Your task to perform on an android device: turn notification dots off Image 0: 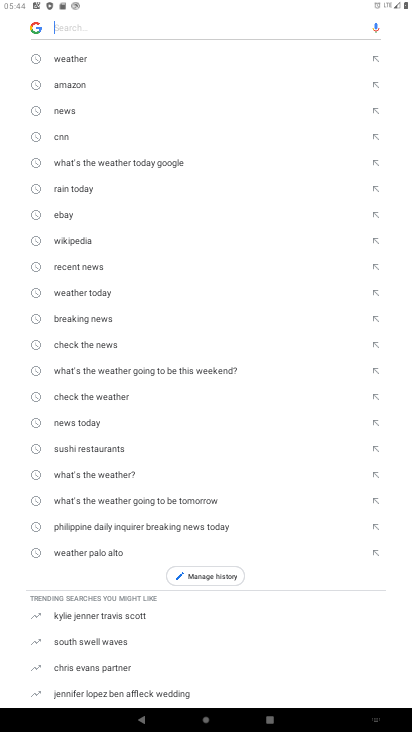
Step 0: press home button
Your task to perform on an android device: turn notification dots off Image 1: 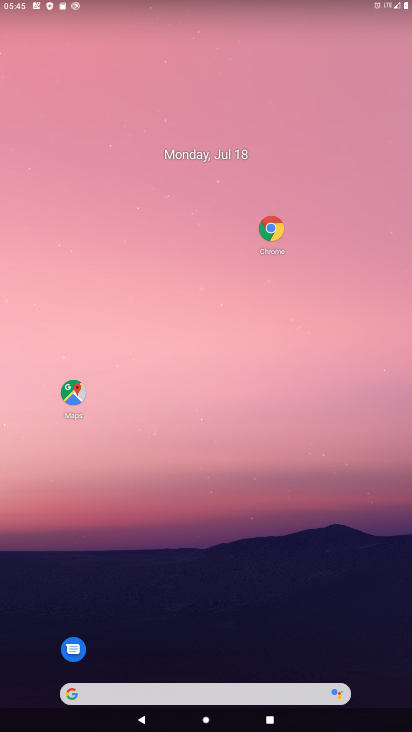
Step 1: drag from (285, 626) to (254, 165)
Your task to perform on an android device: turn notification dots off Image 2: 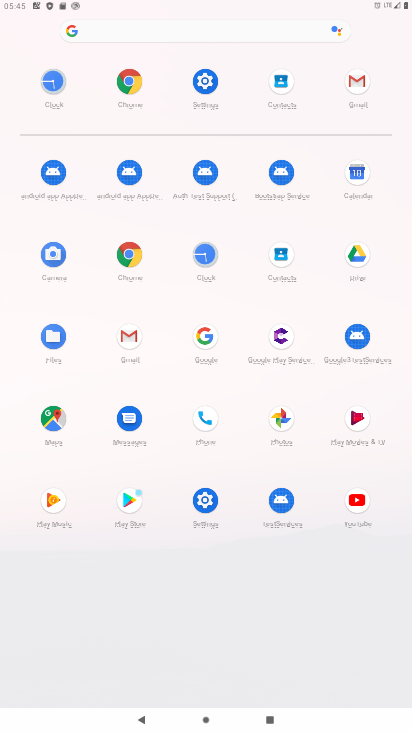
Step 2: click (211, 72)
Your task to perform on an android device: turn notification dots off Image 3: 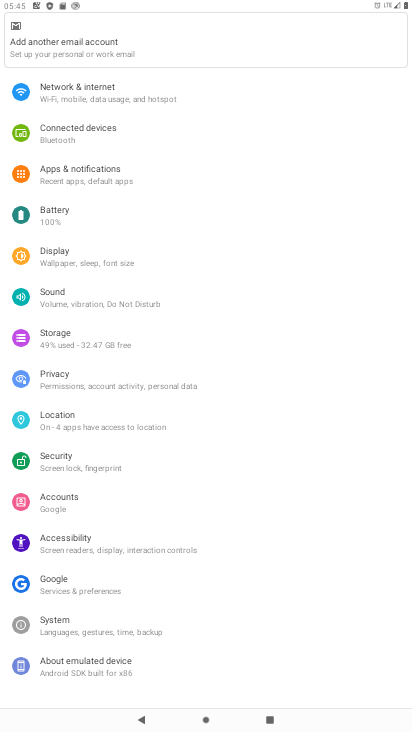
Step 3: click (143, 185)
Your task to perform on an android device: turn notification dots off Image 4: 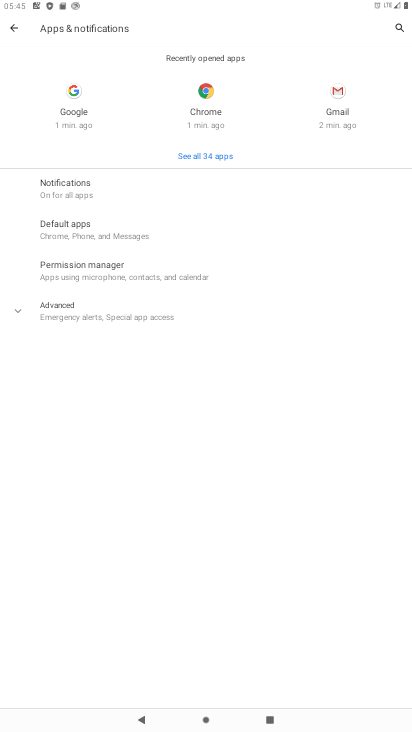
Step 4: click (126, 193)
Your task to perform on an android device: turn notification dots off Image 5: 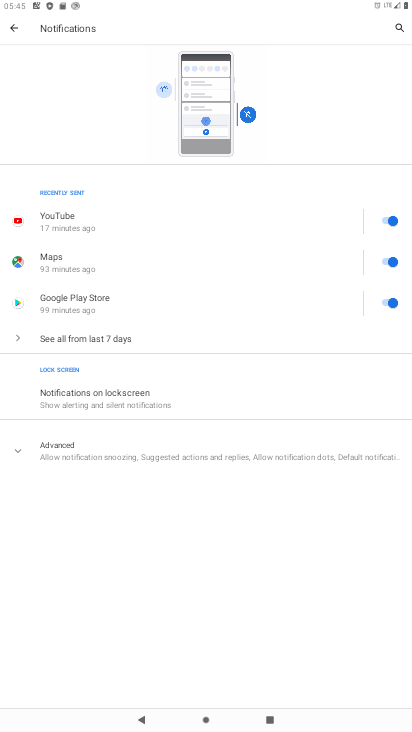
Step 5: click (205, 413)
Your task to perform on an android device: turn notification dots off Image 6: 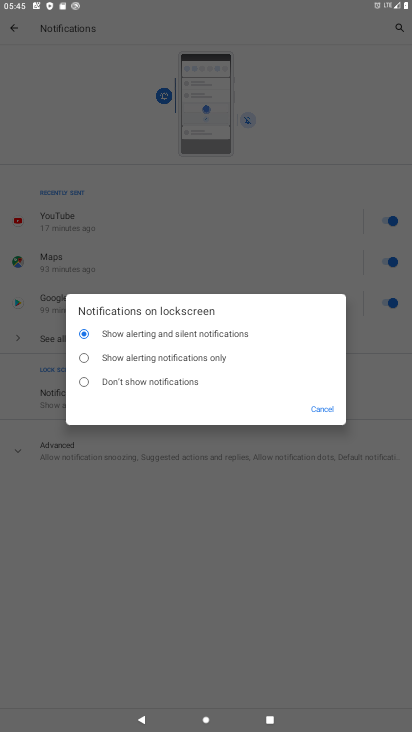
Step 6: click (332, 421)
Your task to perform on an android device: turn notification dots off Image 7: 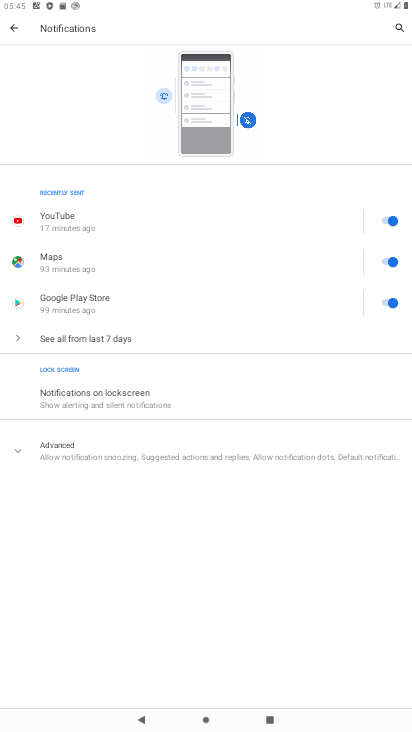
Step 7: click (148, 458)
Your task to perform on an android device: turn notification dots off Image 8: 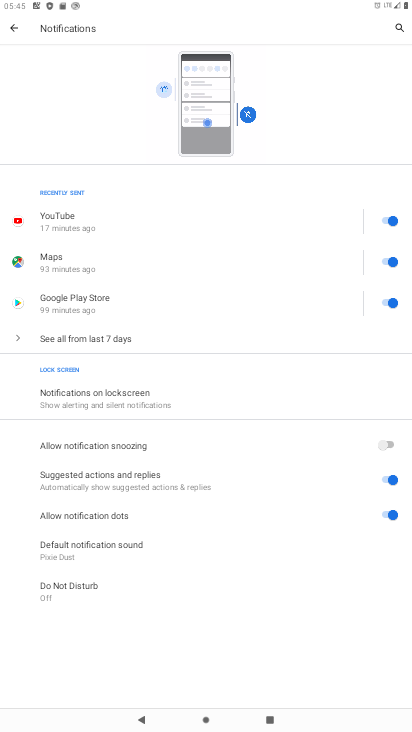
Step 8: click (396, 517)
Your task to perform on an android device: turn notification dots off Image 9: 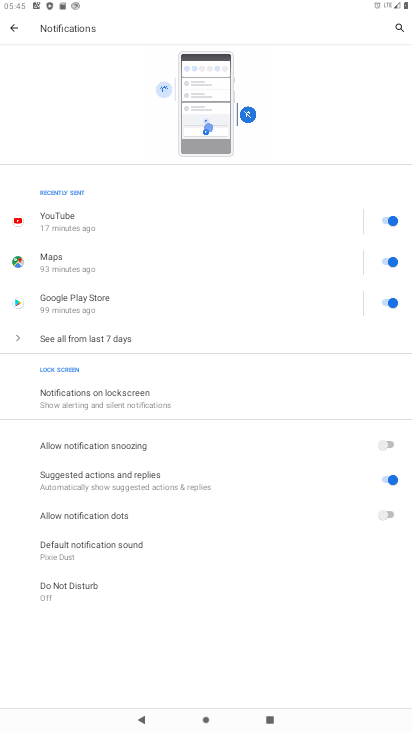
Step 9: task complete